Your task to perform on an android device: check storage Image 0: 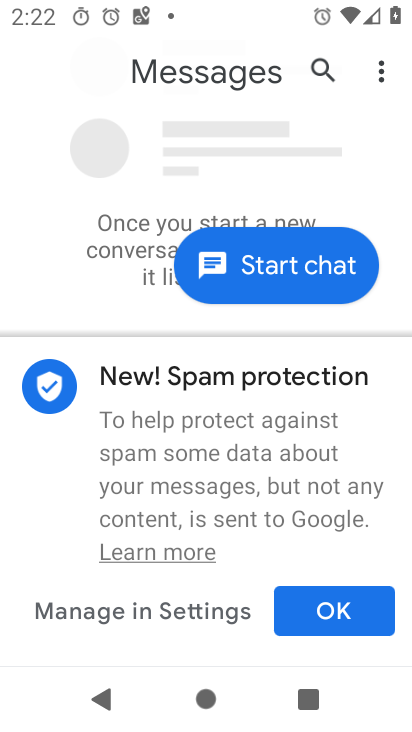
Step 0: press home button
Your task to perform on an android device: check storage Image 1: 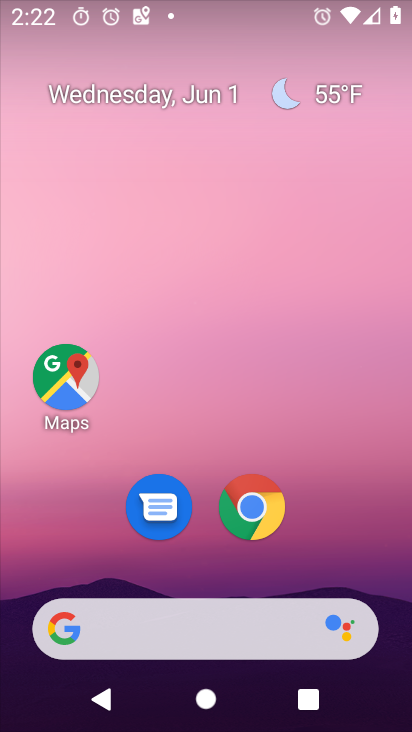
Step 1: drag from (340, 588) to (351, 1)
Your task to perform on an android device: check storage Image 2: 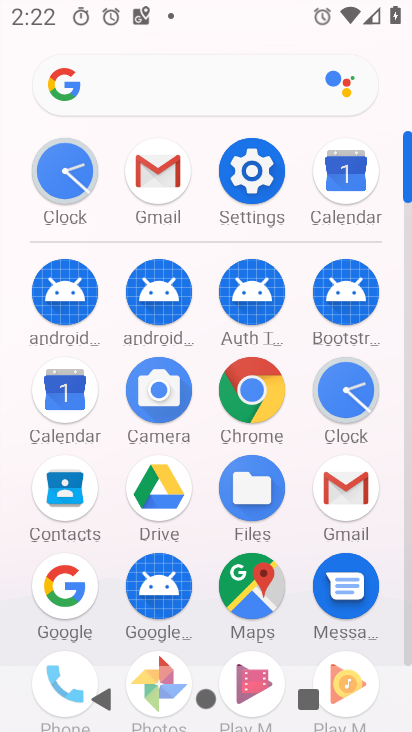
Step 2: click (250, 176)
Your task to perform on an android device: check storage Image 3: 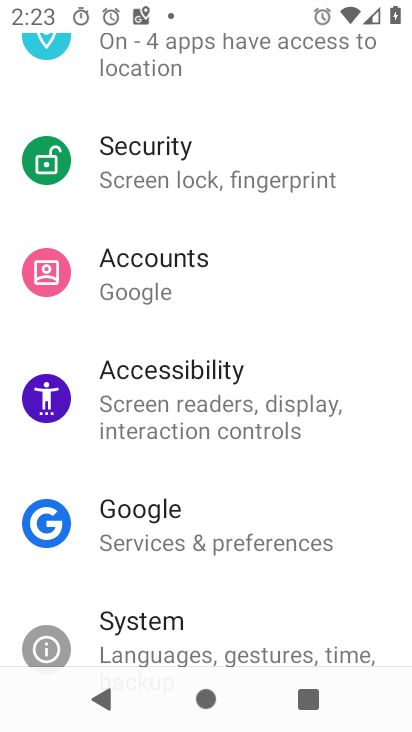
Step 3: drag from (303, 173) to (288, 461)
Your task to perform on an android device: check storage Image 4: 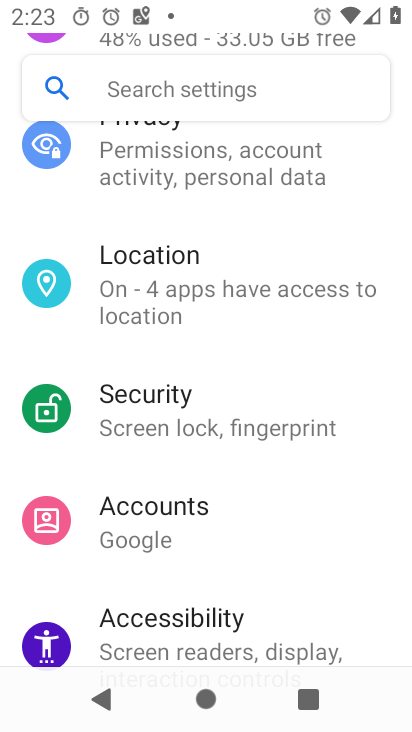
Step 4: drag from (251, 236) to (254, 499)
Your task to perform on an android device: check storage Image 5: 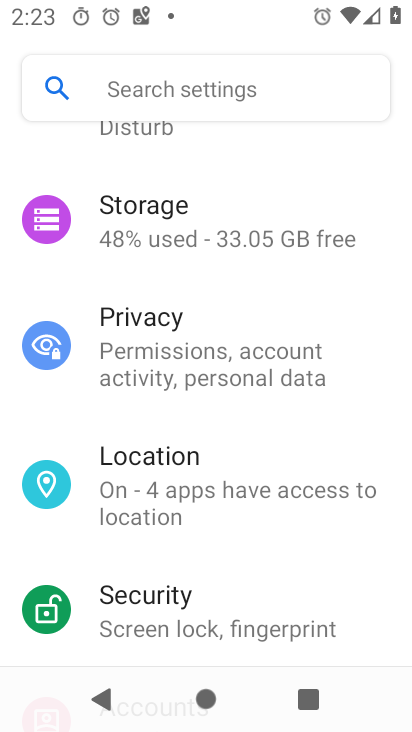
Step 5: click (170, 222)
Your task to perform on an android device: check storage Image 6: 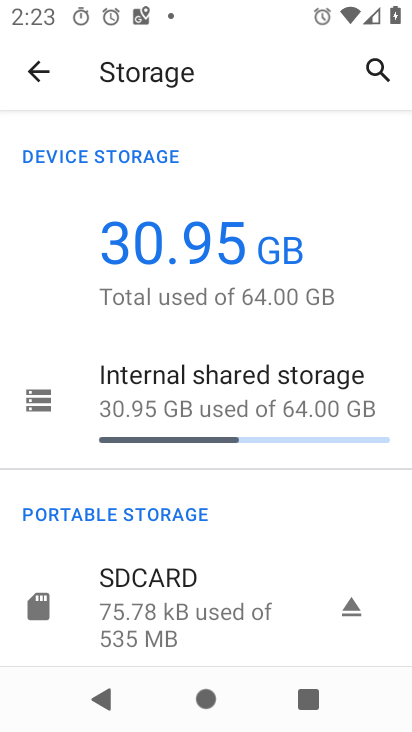
Step 6: click (175, 399)
Your task to perform on an android device: check storage Image 7: 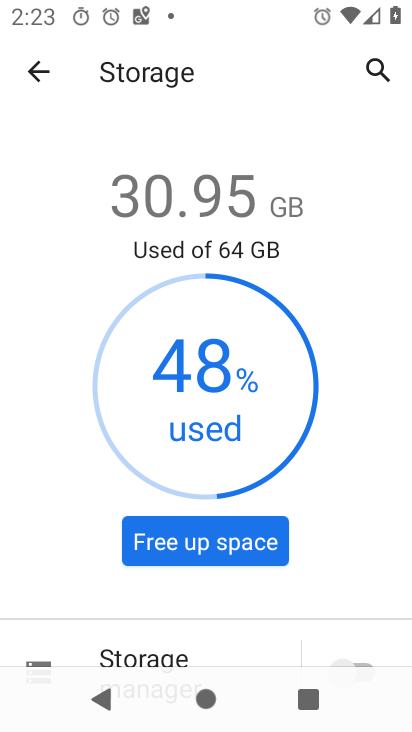
Step 7: task complete